Your task to perform on an android device: Search for "rayovac triple a" on newegg.com, select the first entry, add it to the cart, then select checkout. Image 0: 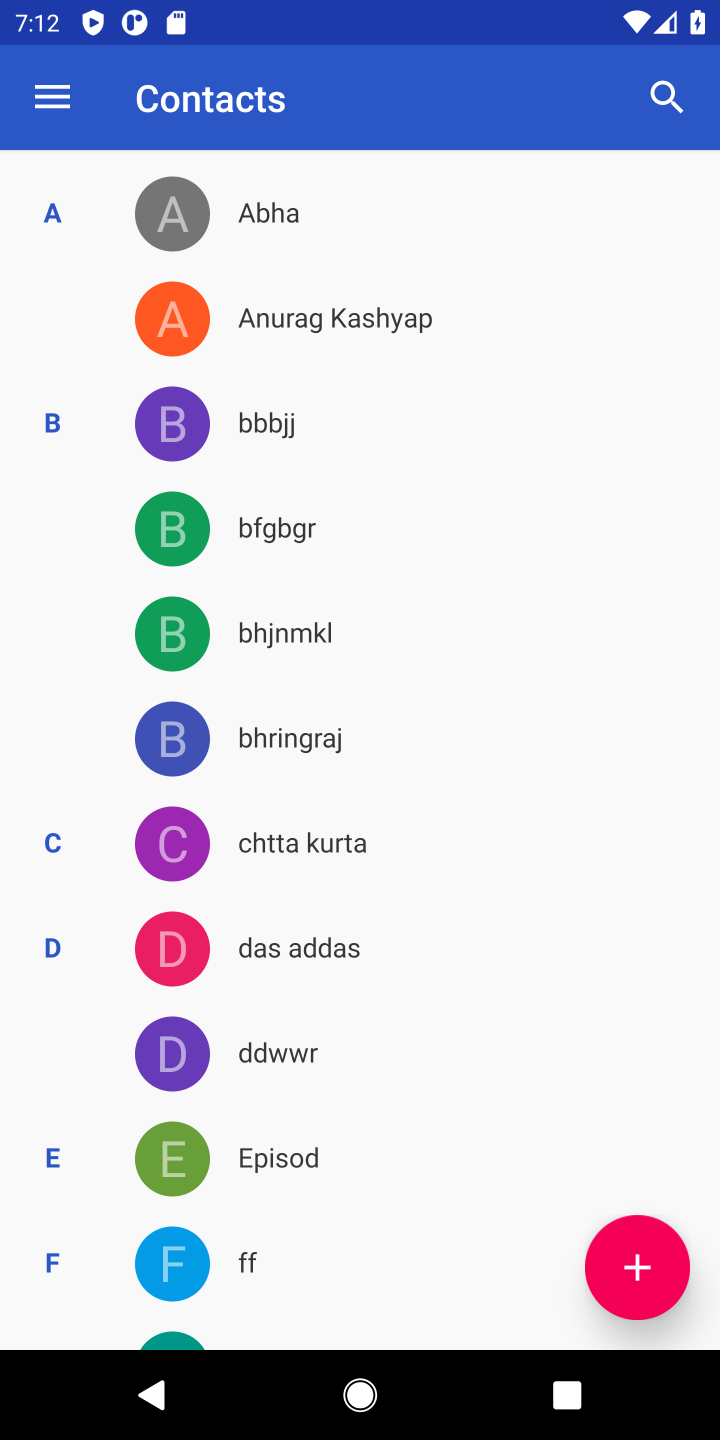
Step 0: press home button
Your task to perform on an android device: Search for "rayovac triple a" on newegg.com, select the first entry, add it to the cart, then select checkout. Image 1: 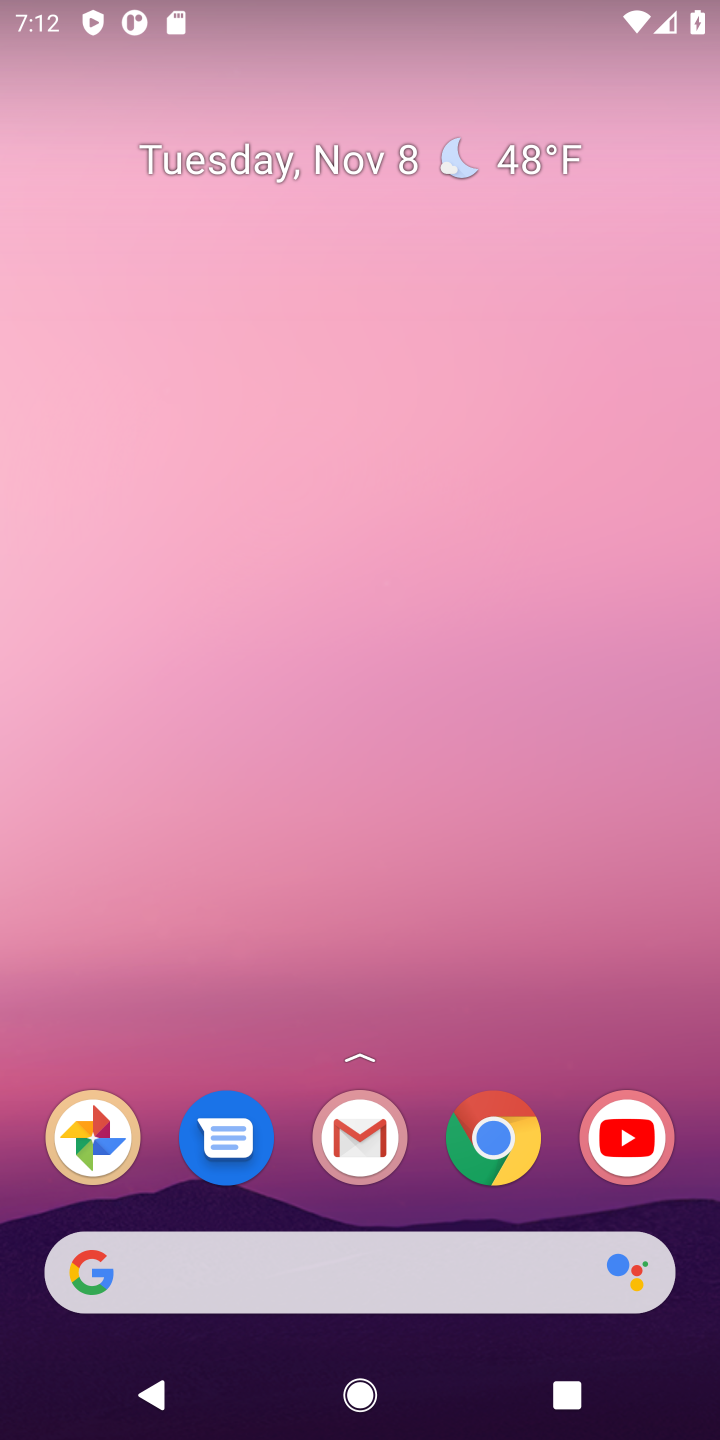
Step 1: click (493, 1123)
Your task to perform on an android device: Search for "rayovac triple a" on newegg.com, select the first entry, add it to the cart, then select checkout. Image 2: 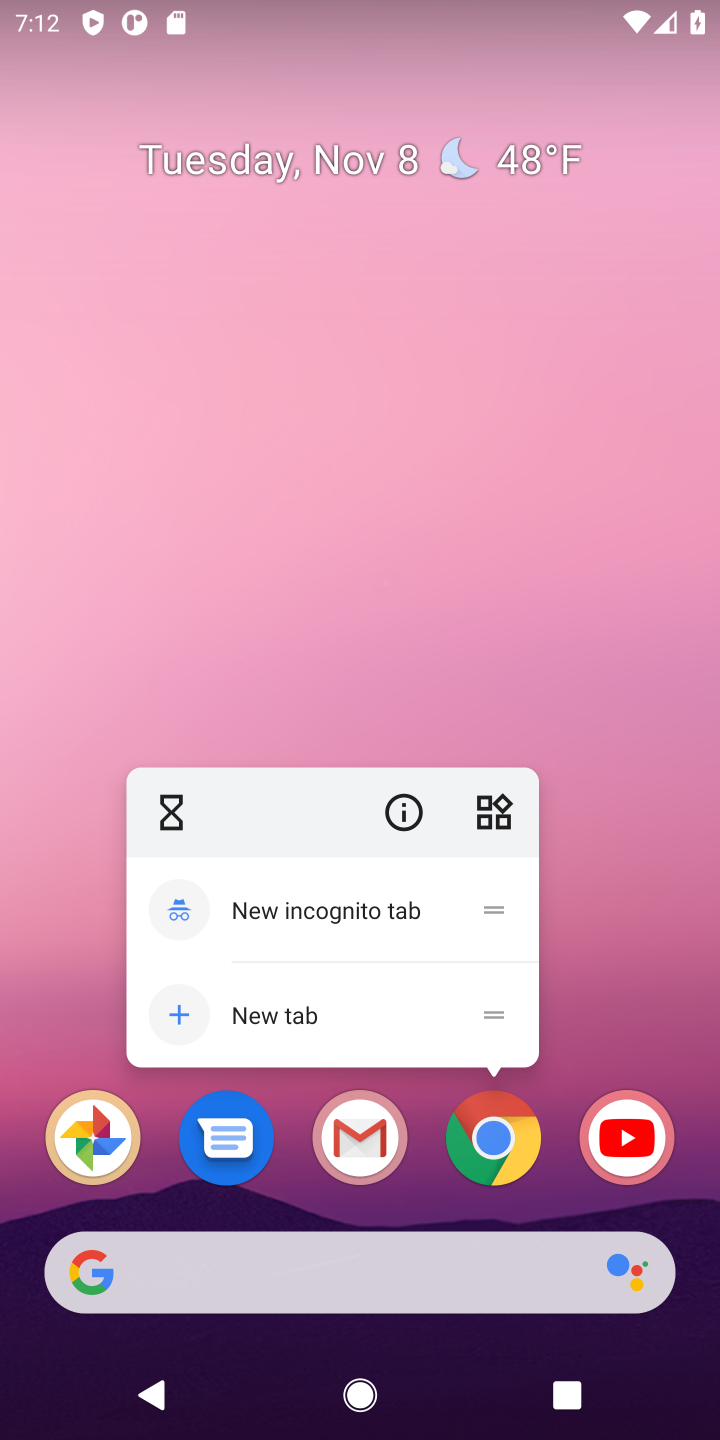
Step 2: click (493, 1124)
Your task to perform on an android device: Search for "rayovac triple a" on newegg.com, select the first entry, add it to the cart, then select checkout. Image 3: 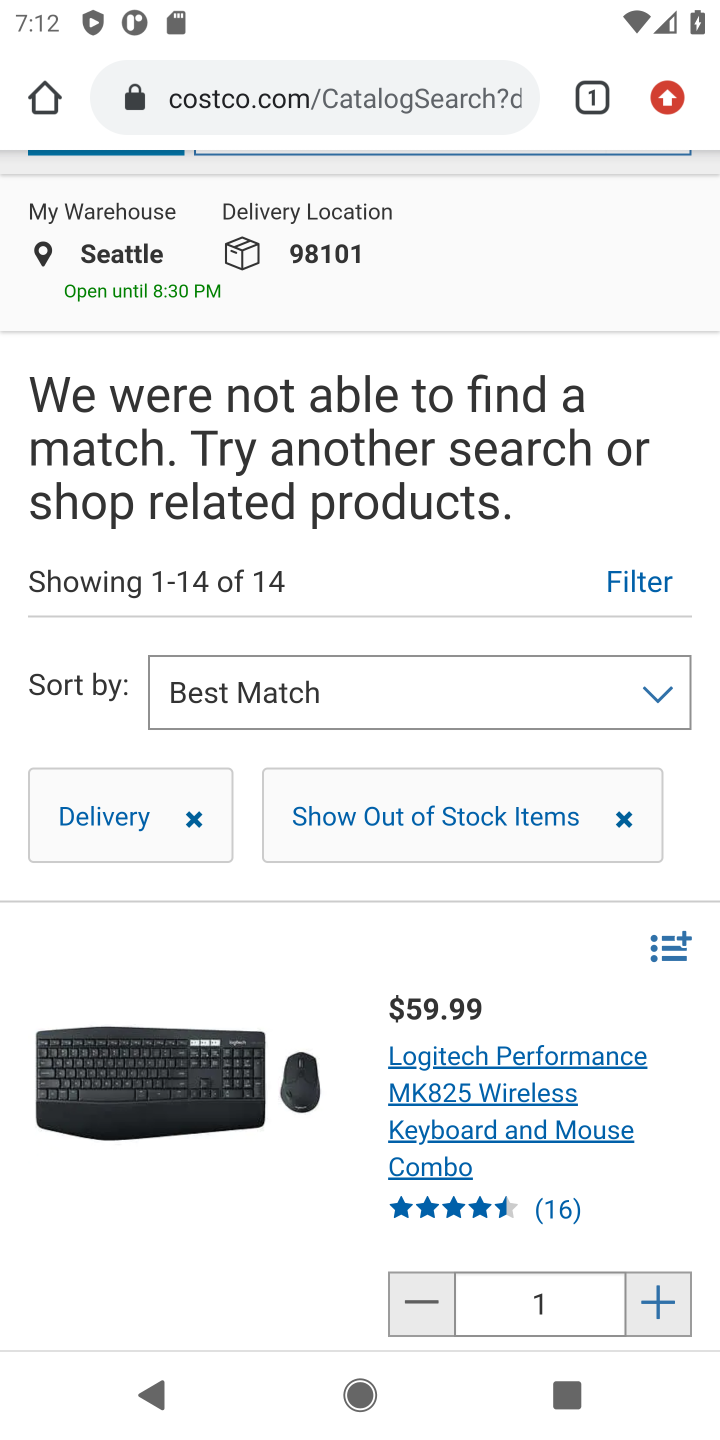
Step 3: click (412, 92)
Your task to perform on an android device: Search for "rayovac triple a" on newegg.com, select the first entry, add it to the cart, then select checkout. Image 4: 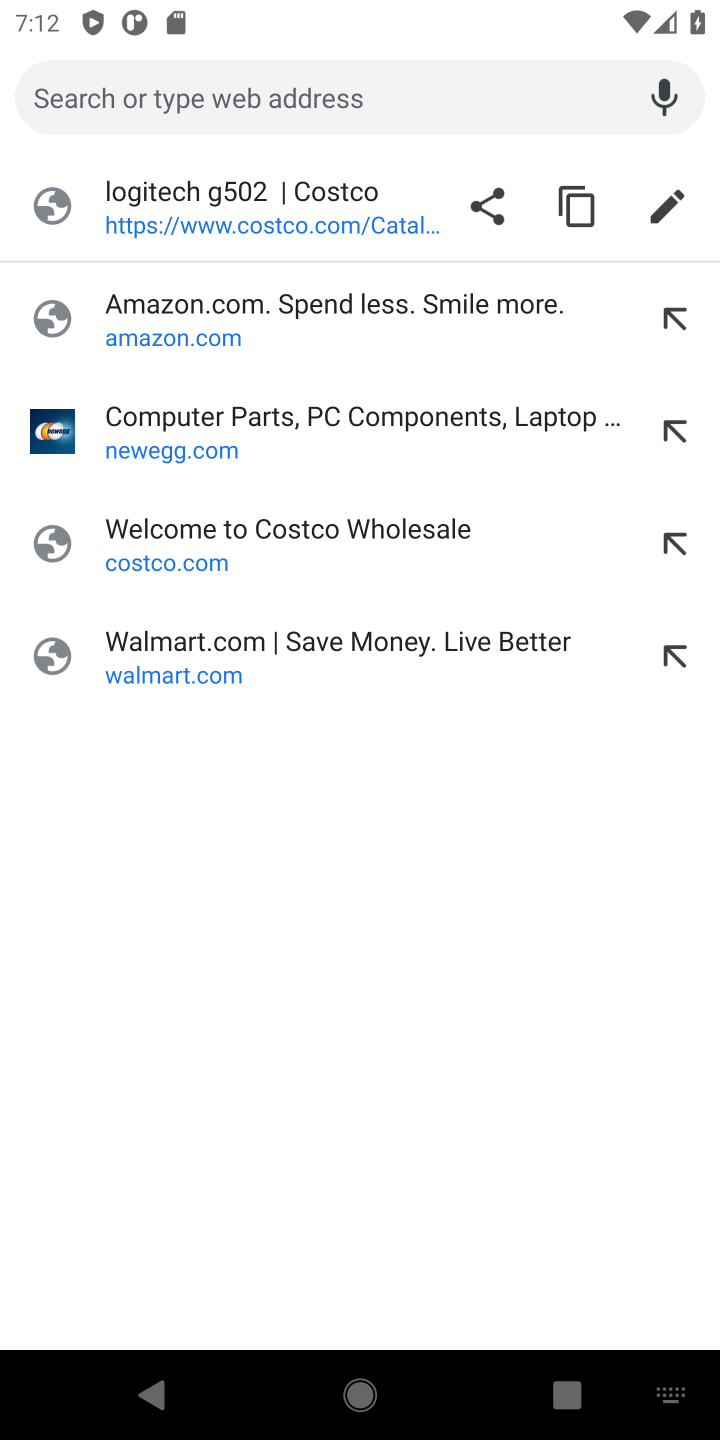
Step 4: type "newegg.com"
Your task to perform on an android device: Search for "rayovac triple a" on newegg.com, select the first entry, add it to the cart, then select checkout. Image 5: 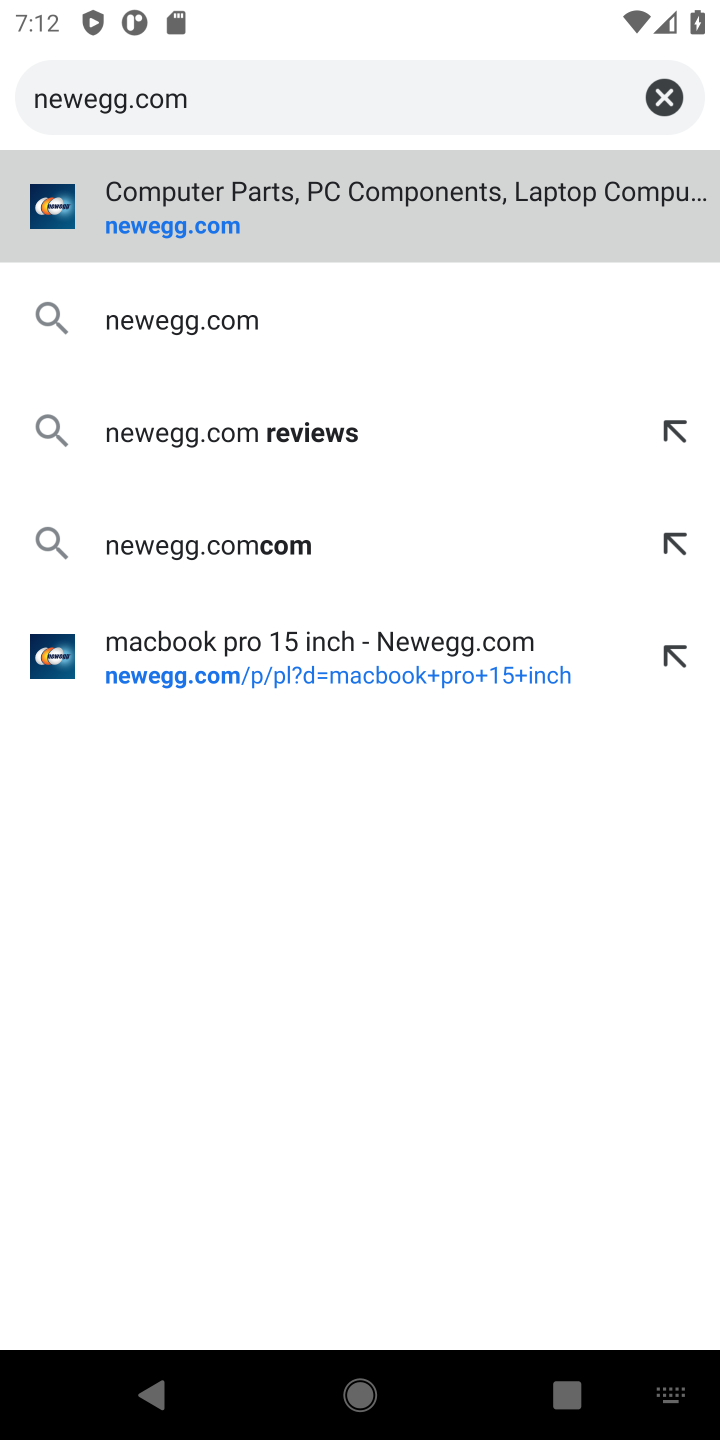
Step 5: press enter
Your task to perform on an android device: Search for "rayovac triple a" on newegg.com, select the first entry, add it to the cart, then select checkout. Image 6: 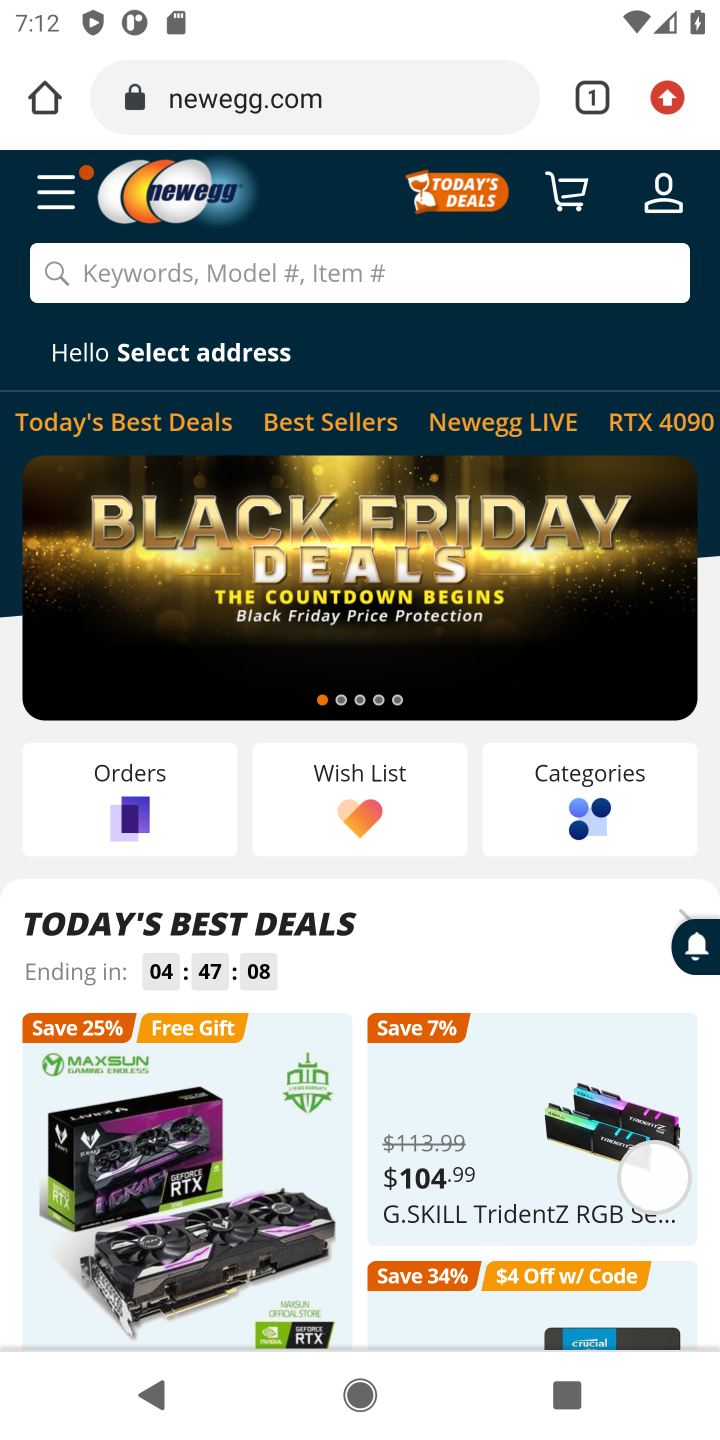
Step 6: click (149, 262)
Your task to perform on an android device: Search for "rayovac triple a" on newegg.com, select the first entry, add it to the cart, then select checkout. Image 7: 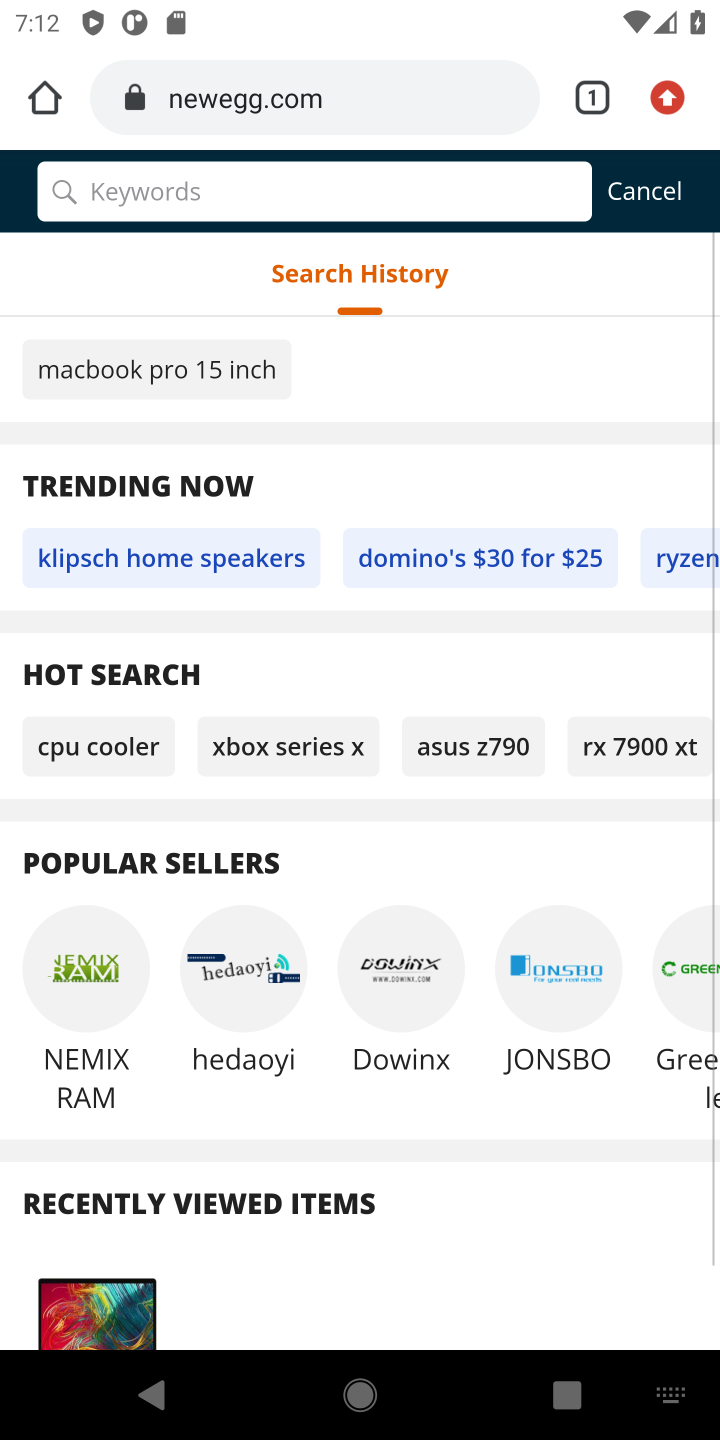
Step 7: click (168, 273)
Your task to perform on an android device: Search for "rayovac triple a" on newegg.com, select the first entry, add it to the cart, then select checkout. Image 8: 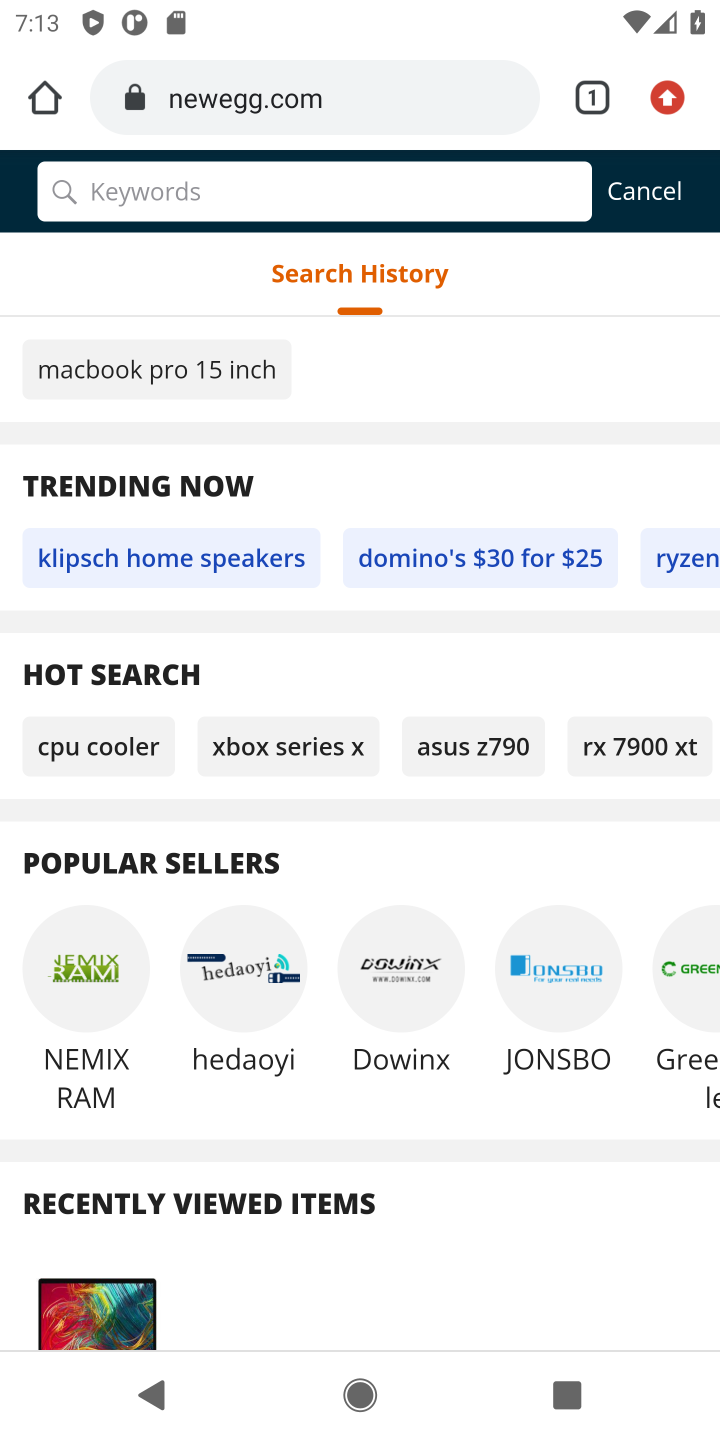
Step 8: type "rayovac triple a"
Your task to perform on an android device: Search for "rayovac triple a" on newegg.com, select the first entry, add it to the cart, then select checkout. Image 9: 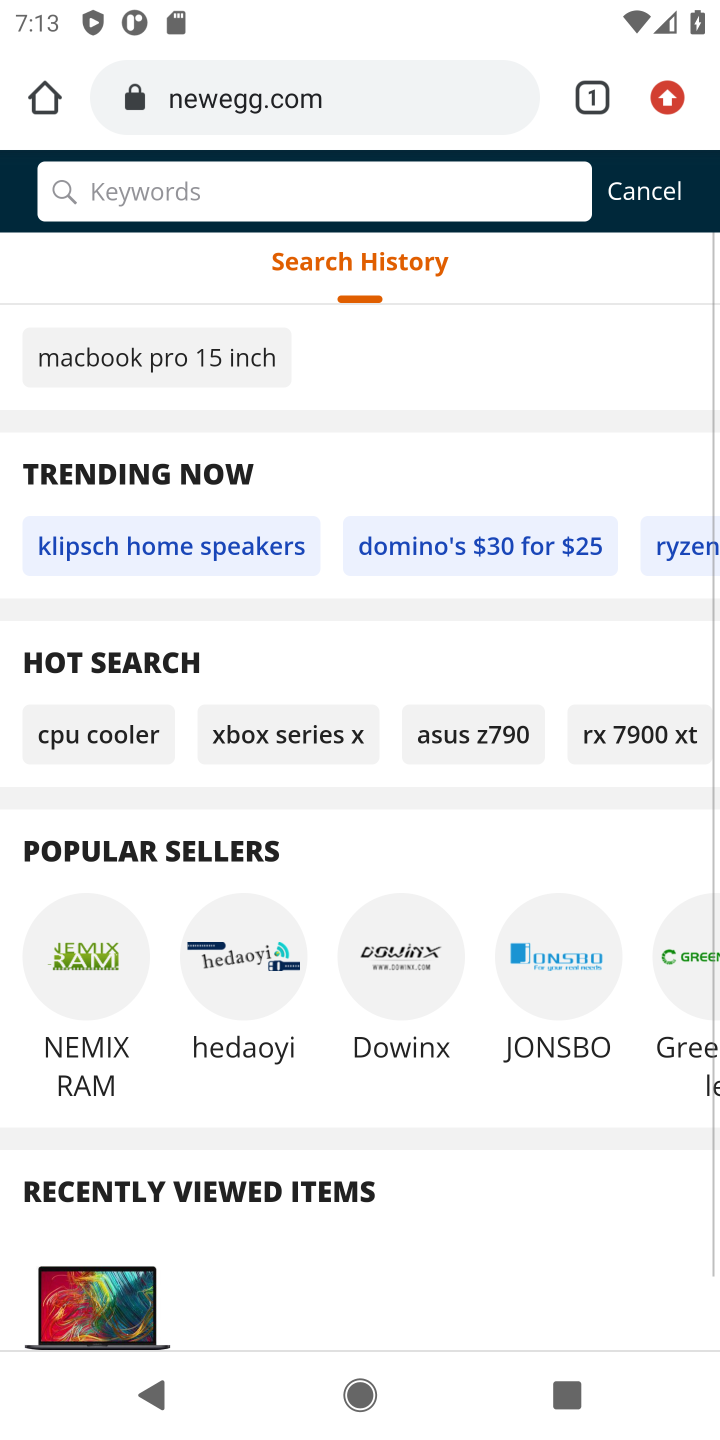
Step 9: press enter
Your task to perform on an android device: Search for "rayovac triple a" on newegg.com, select the first entry, add it to the cart, then select checkout. Image 10: 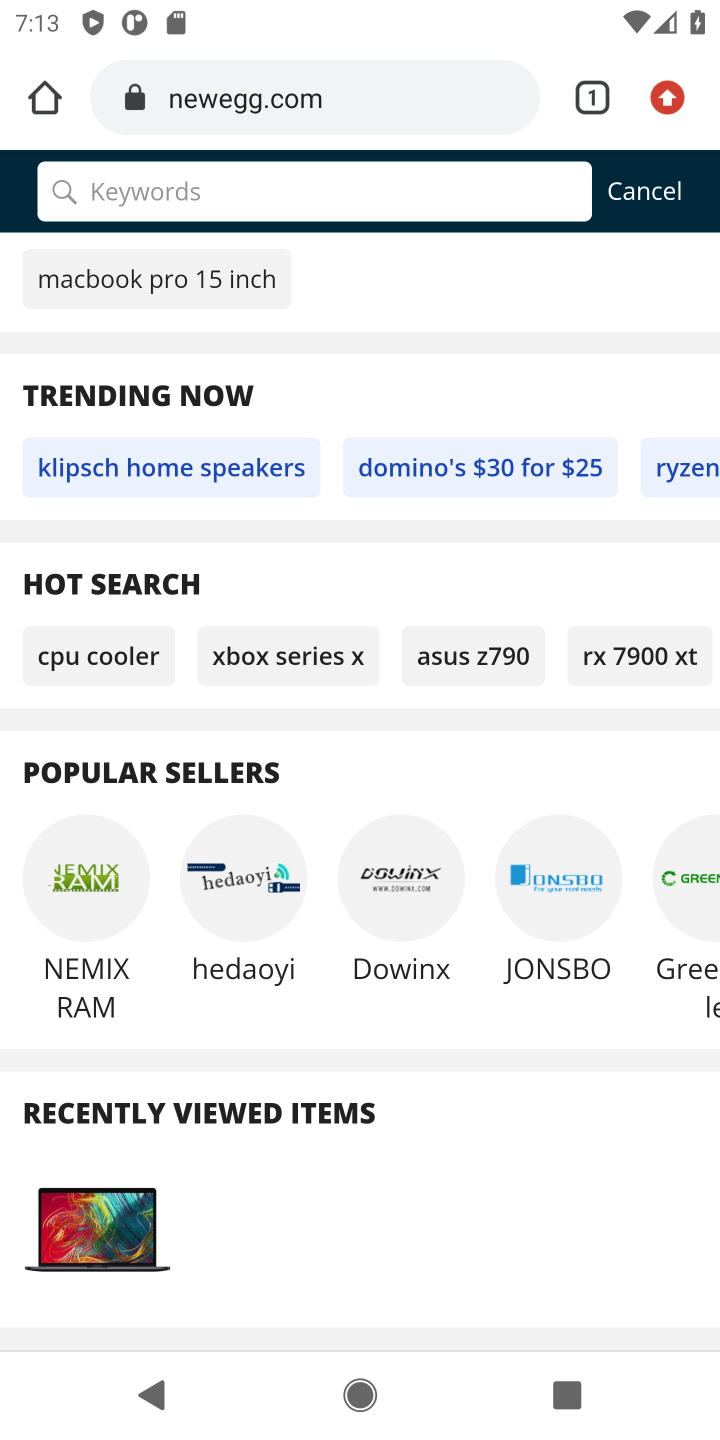
Step 10: click (209, 173)
Your task to perform on an android device: Search for "rayovac triple a" on newegg.com, select the first entry, add it to the cart, then select checkout. Image 11: 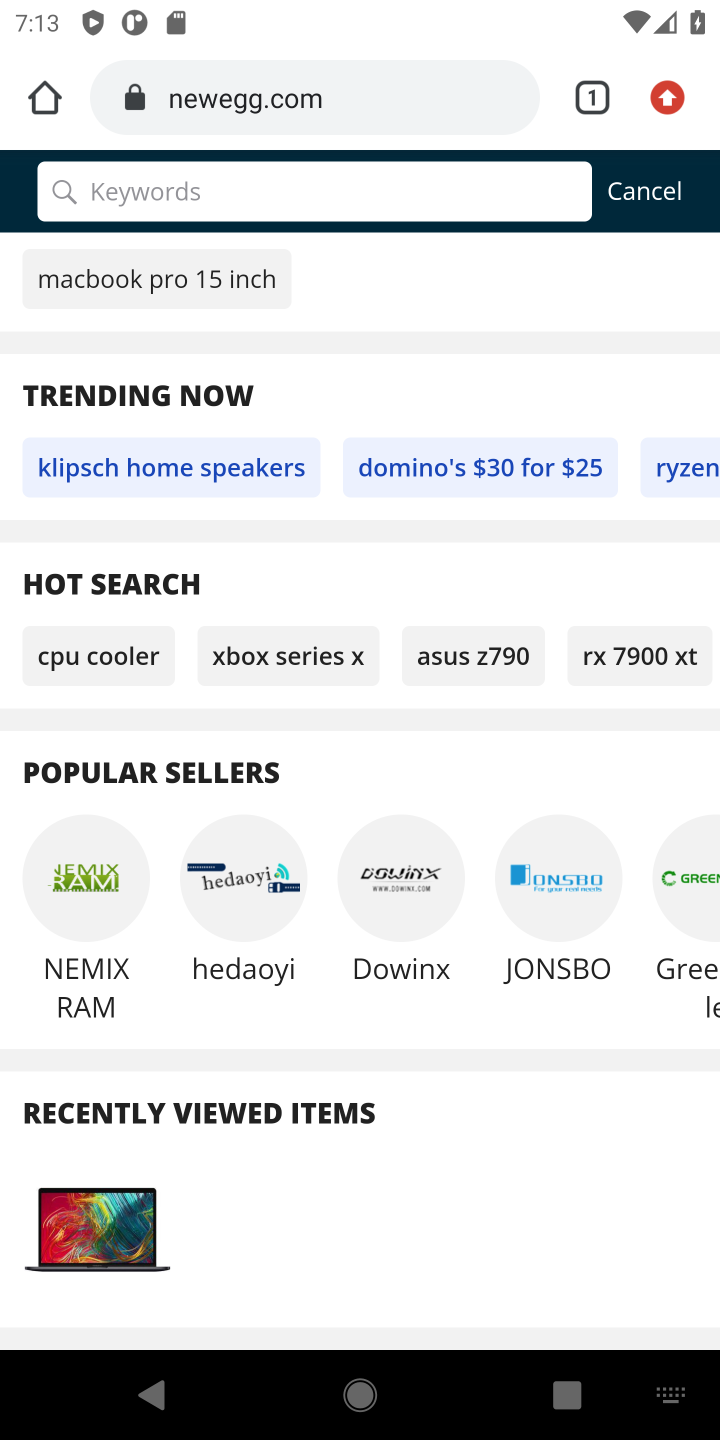
Step 11: type "rayovac triple a"
Your task to perform on an android device: Search for "rayovac triple a" on newegg.com, select the first entry, add it to the cart, then select checkout. Image 12: 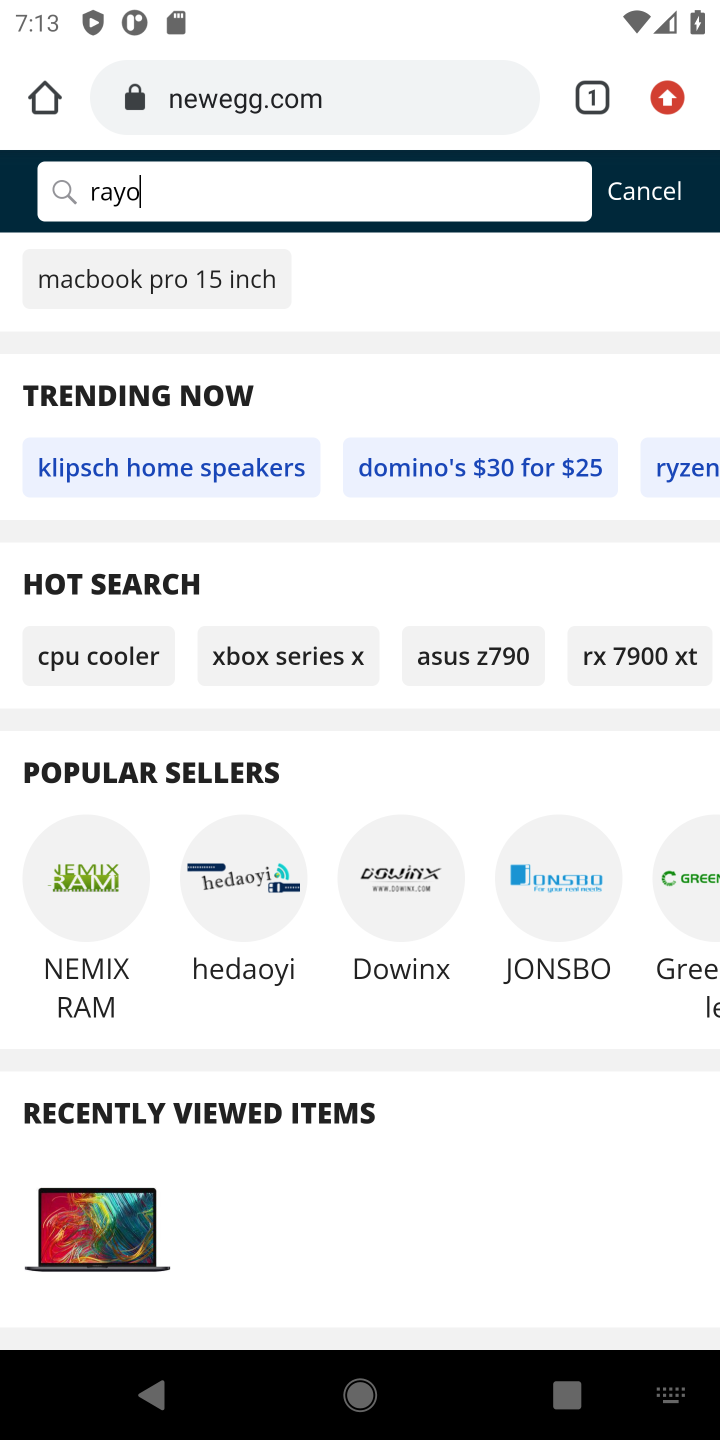
Step 12: press enter
Your task to perform on an android device: Search for "rayovac triple a" on newegg.com, select the first entry, add it to the cart, then select checkout. Image 13: 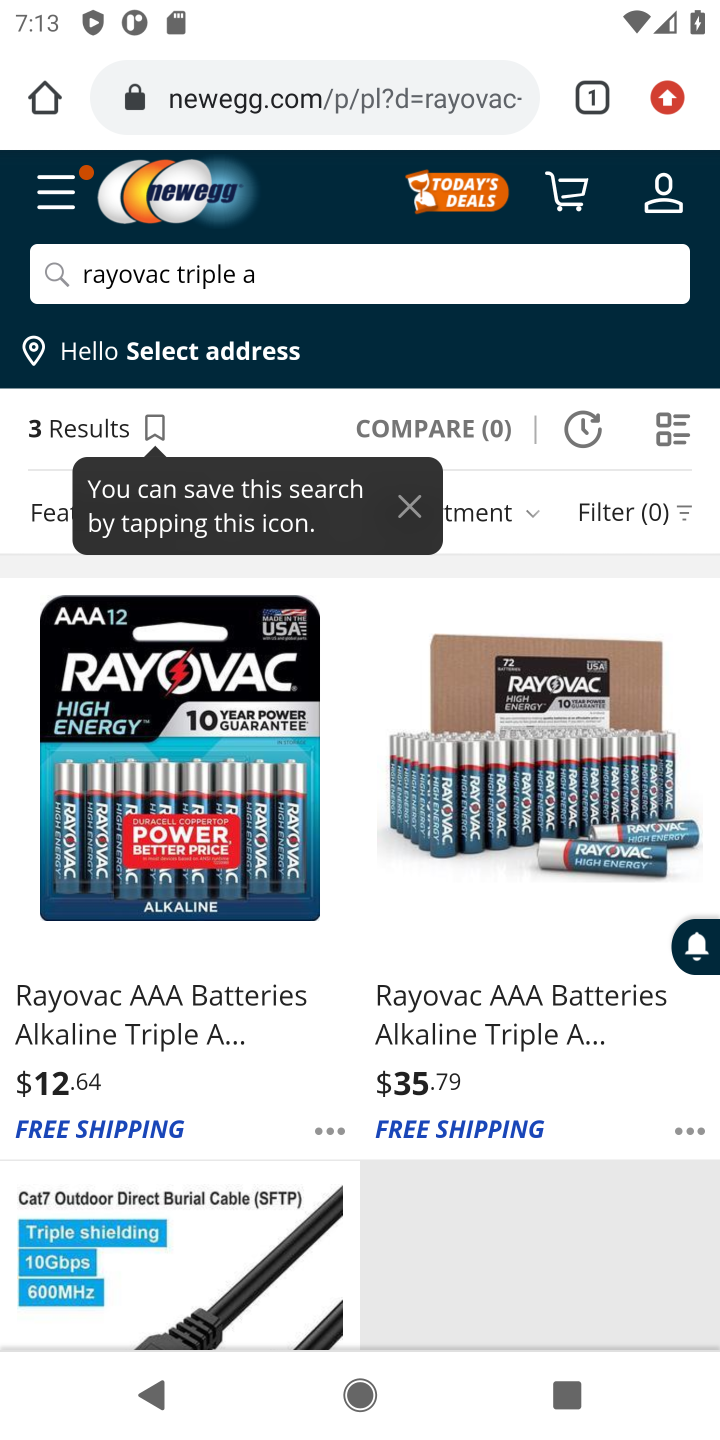
Step 13: click (168, 1012)
Your task to perform on an android device: Search for "rayovac triple a" on newegg.com, select the first entry, add it to the cart, then select checkout. Image 14: 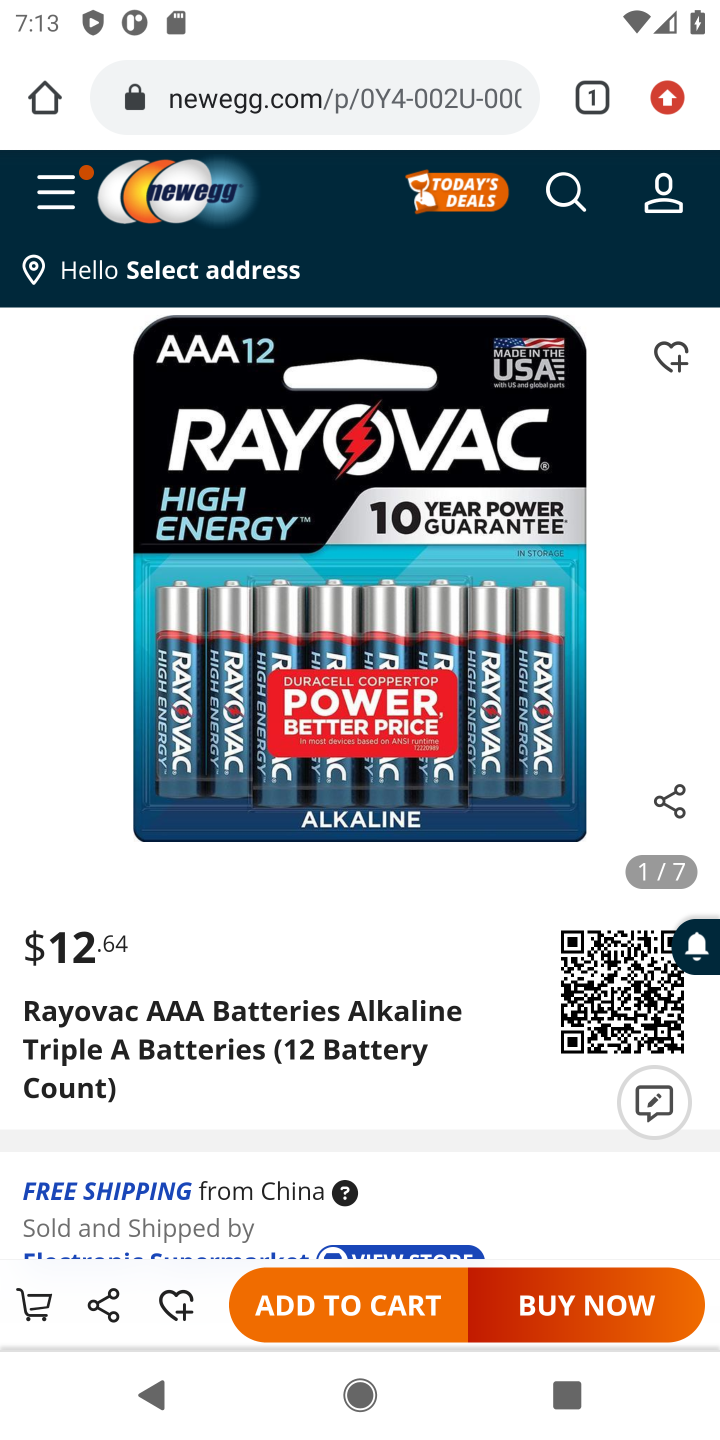
Step 14: click (369, 1310)
Your task to perform on an android device: Search for "rayovac triple a" on newegg.com, select the first entry, add it to the cart, then select checkout. Image 15: 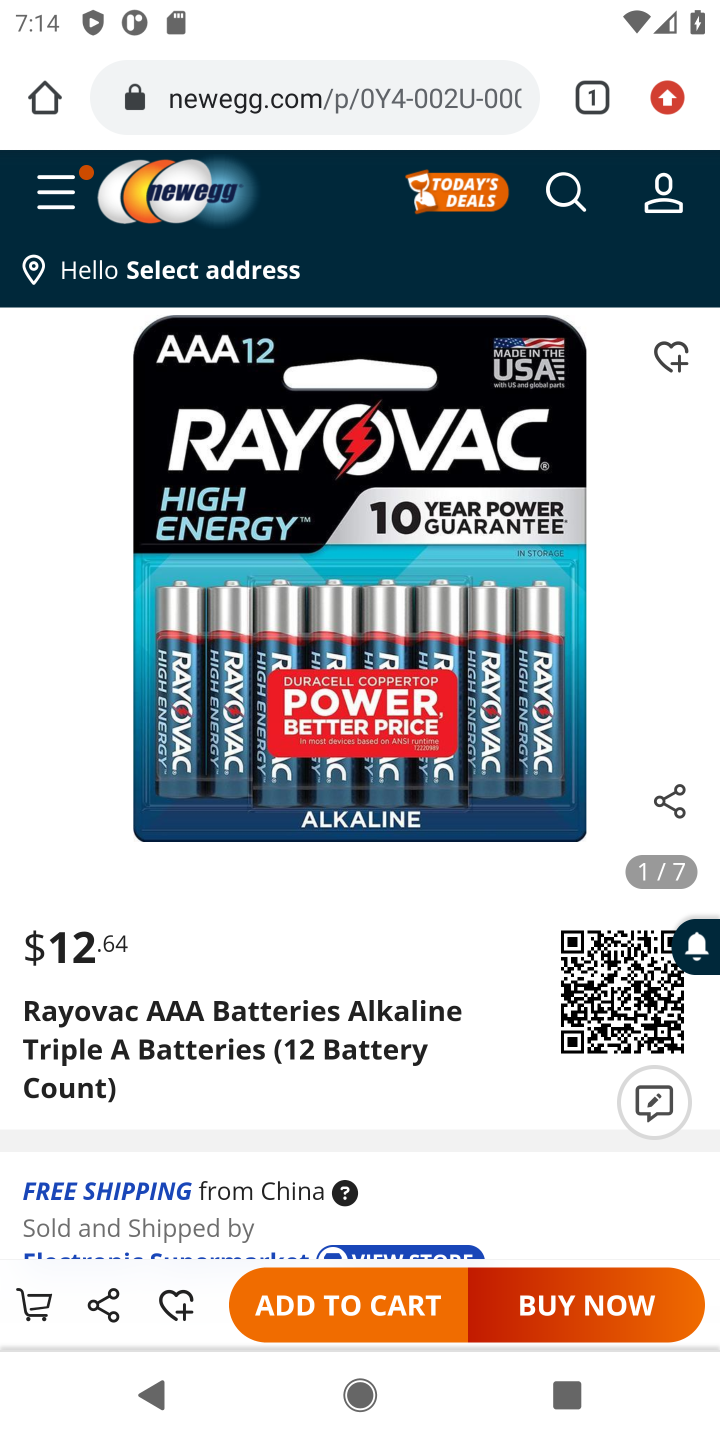
Step 15: click (355, 1309)
Your task to perform on an android device: Search for "rayovac triple a" on newegg.com, select the first entry, add it to the cart, then select checkout. Image 16: 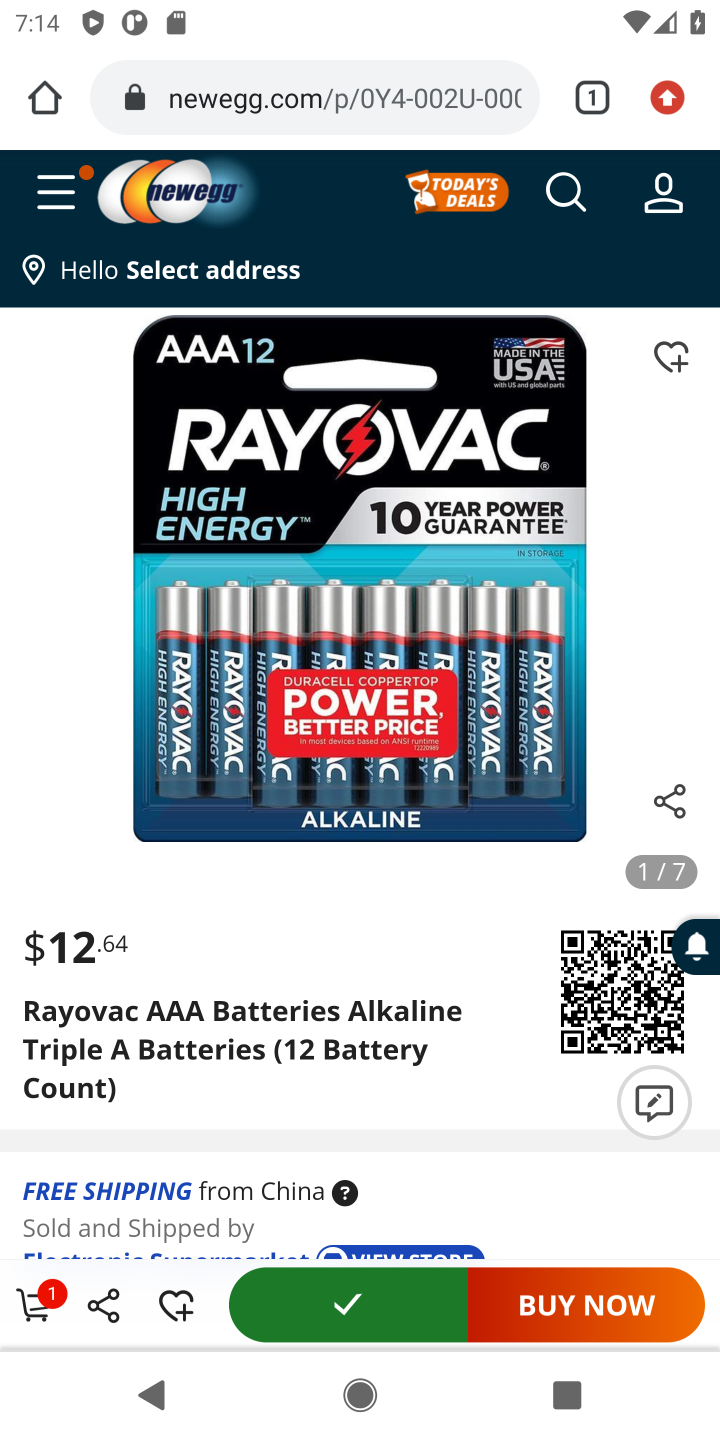
Step 16: click (40, 1302)
Your task to perform on an android device: Search for "rayovac triple a" on newegg.com, select the first entry, add it to the cart, then select checkout. Image 17: 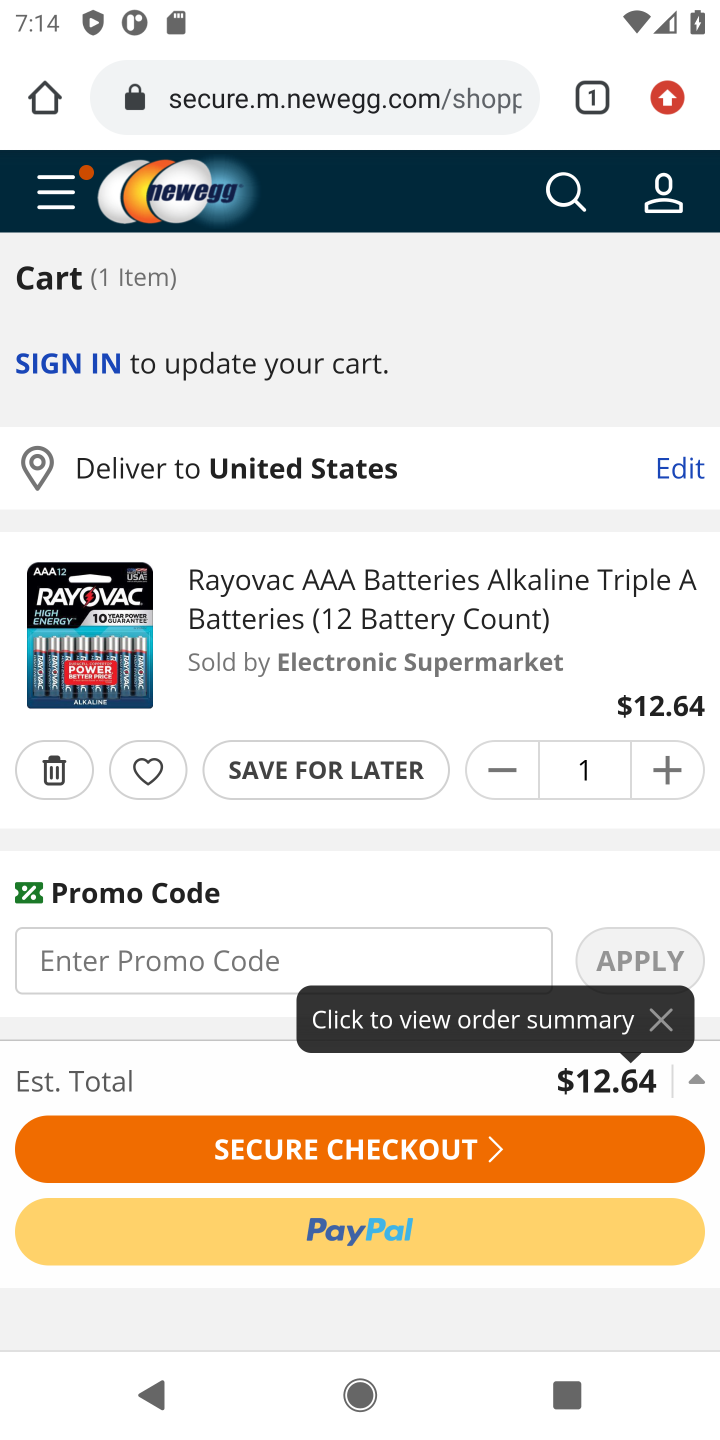
Step 17: click (325, 1149)
Your task to perform on an android device: Search for "rayovac triple a" on newegg.com, select the first entry, add it to the cart, then select checkout. Image 18: 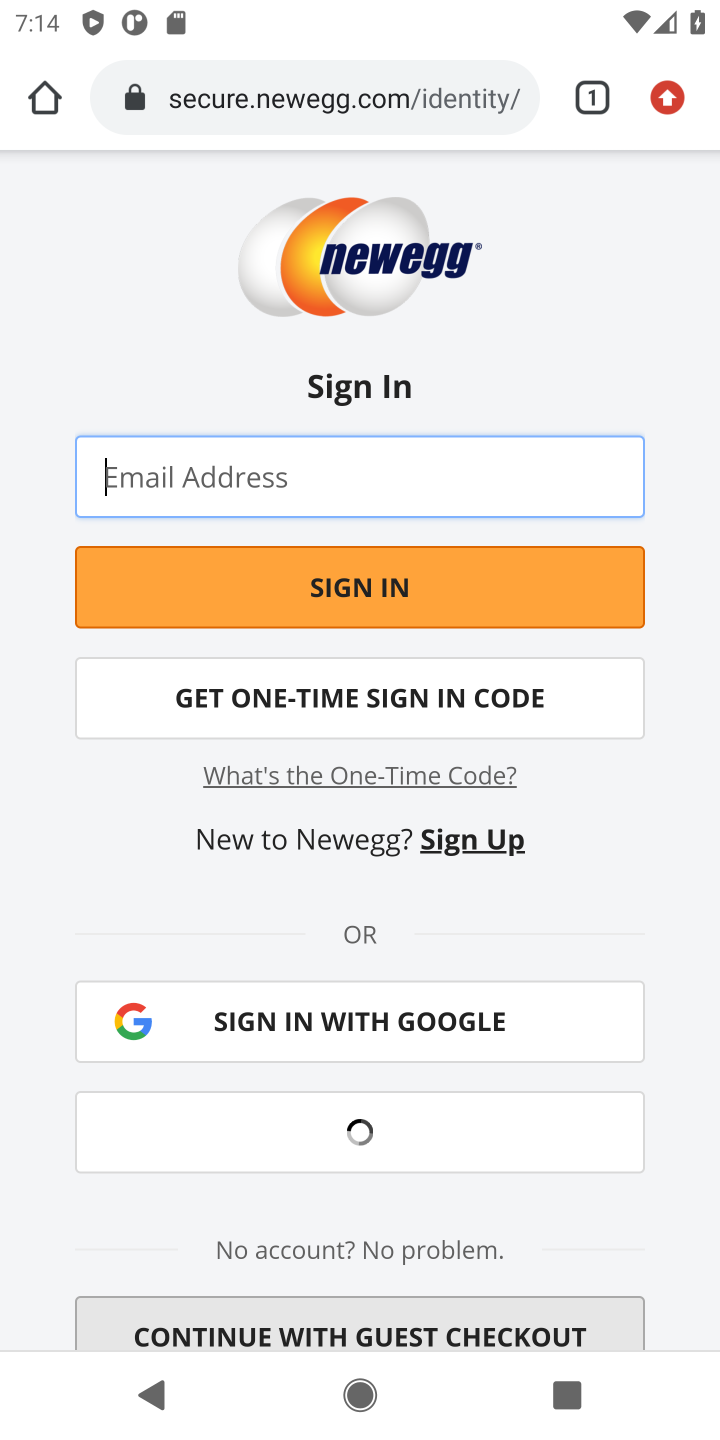
Step 18: task complete